Your task to perform on an android device: Open display settings Image 0: 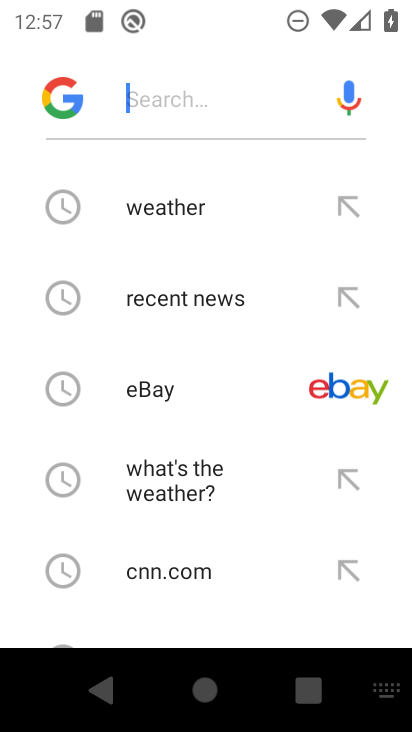
Step 0: press home button
Your task to perform on an android device: Open display settings Image 1: 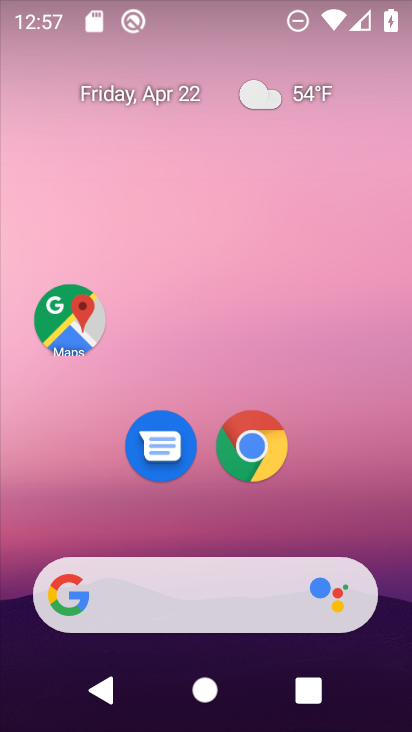
Step 1: drag from (393, 513) to (307, 97)
Your task to perform on an android device: Open display settings Image 2: 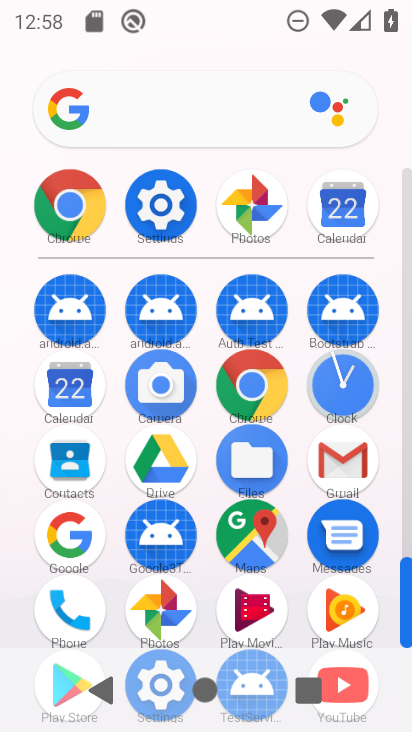
Step 2: click (162, 219)
Your task to perform on an android device: Open display settings Image 3: 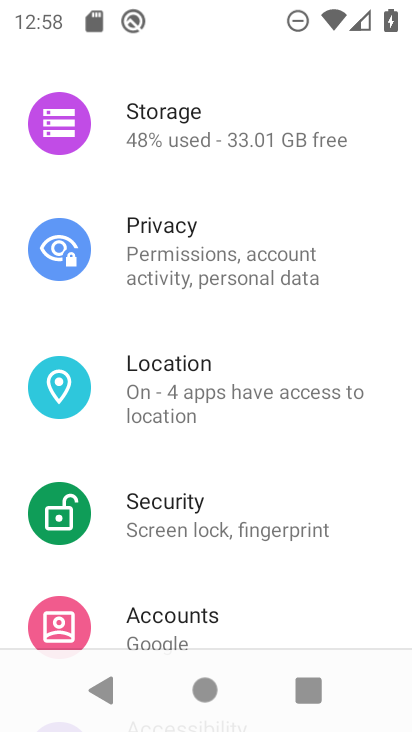
Step 3: drag from (162, 219) to (236, 624)
Your task to perform on an android device: Open display settings Image 4: 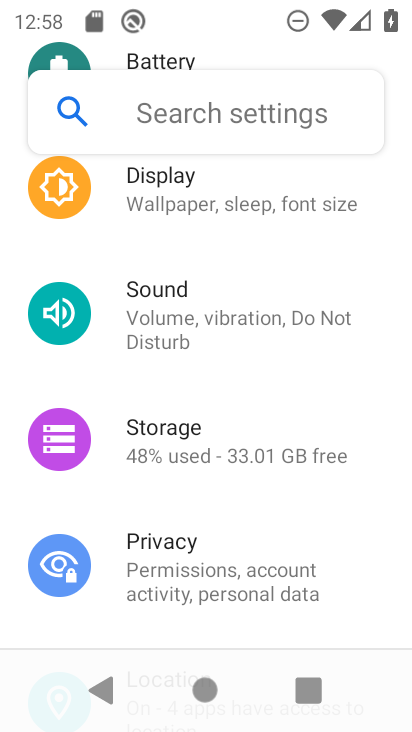
Step 4: click (274, 207)
Your task to perform on an android device: Open display settings Image 5: 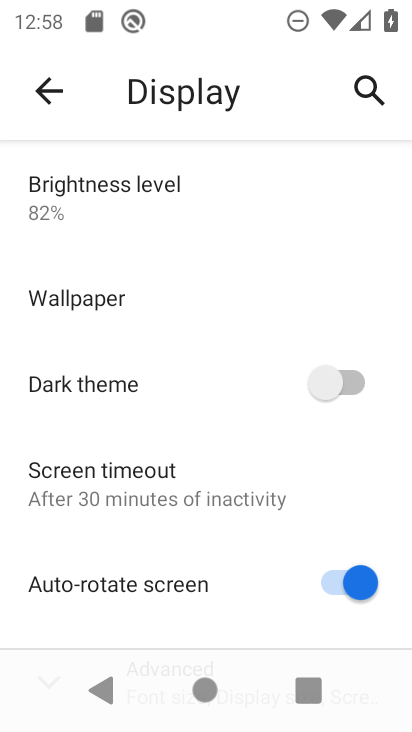
Step 5: task complete